Your task to perform on an android device: change alarm snooze length Image 0: 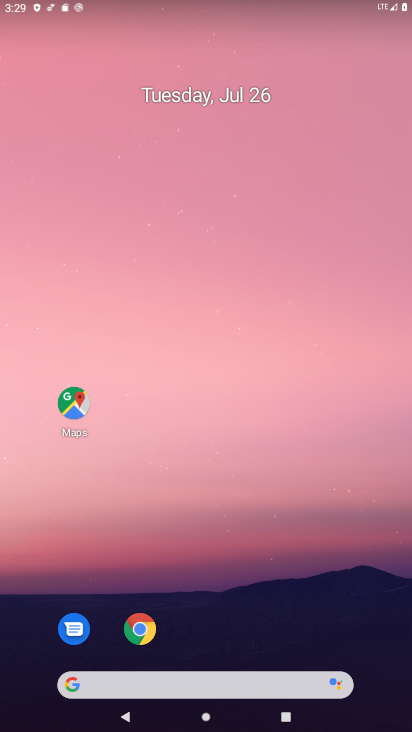
Step 0: drag from (236, 717) to (214, 19)
Your task to perform on an android device: change alarm snooze length Image 1: 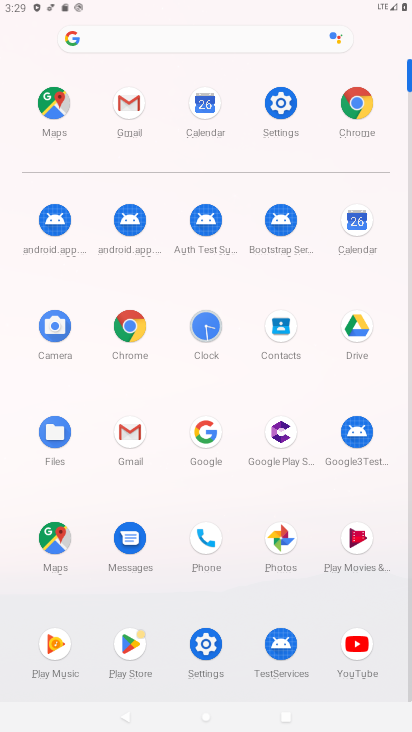
Step 1: click (195, 327)
Your task to perform on an android device: change alarm snooze length Image 2: 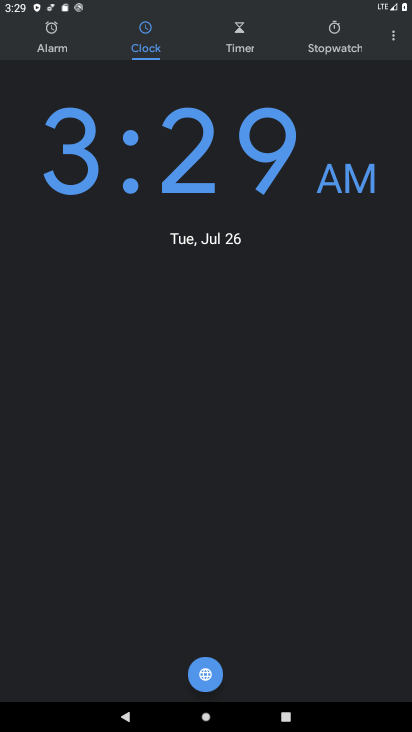
Step 2: click (395, 42)
Your task to perform on an android device: change alarm snooze length Image 3: 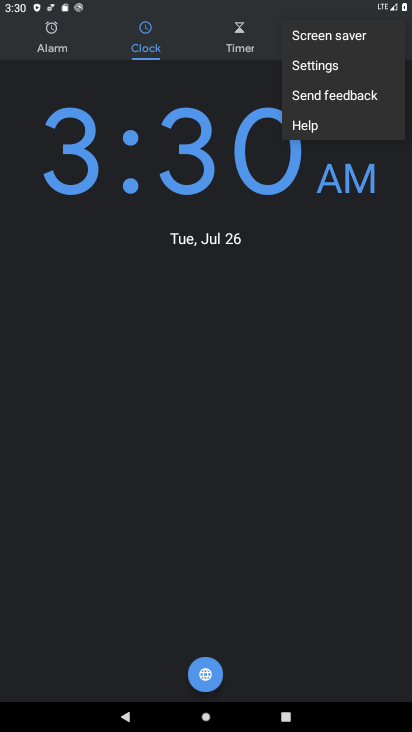
Step 3: click (328, 64)
Your task to perform on an android device: change alarm snooze length Image 4: 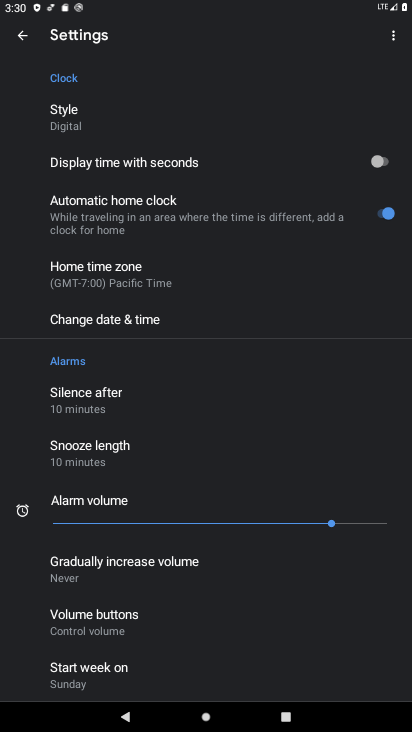
Step 4: click (92, 453)
Your task to perform on an android device: change alarm snooze length Image 5: 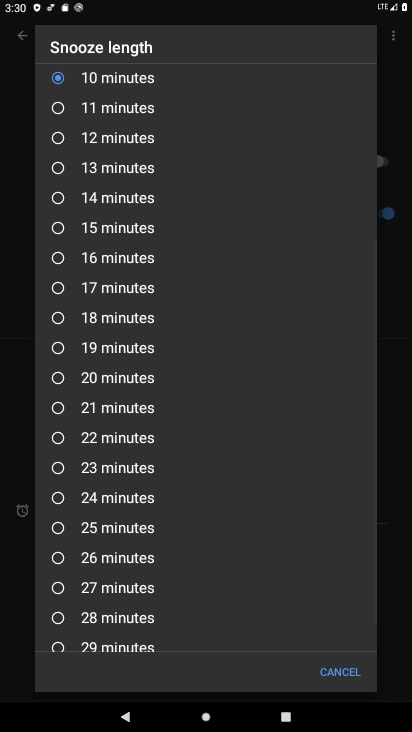
Step 5: click (97, 427)
Your task to perform on an android device: change alarm snooze length Image 6: 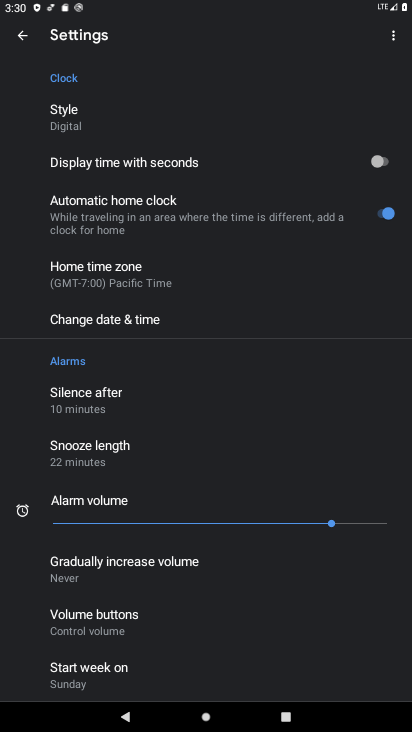
Step 6: task complete